Your task to perform on an android device: Go to internet settings Image 0: 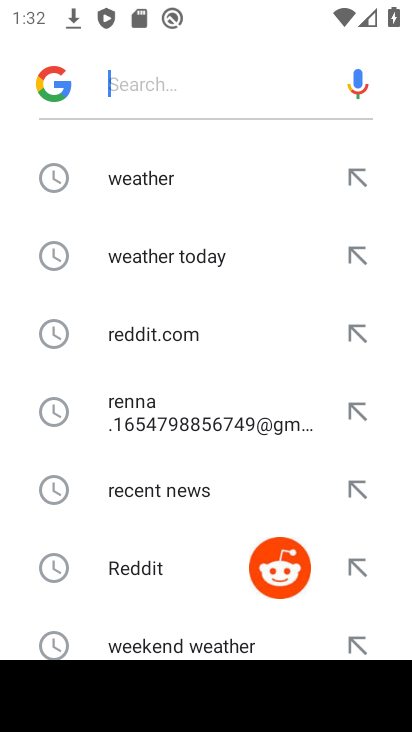
Step 0: press home button
Your task to perform on an android device: Go to internet settings Image 1: 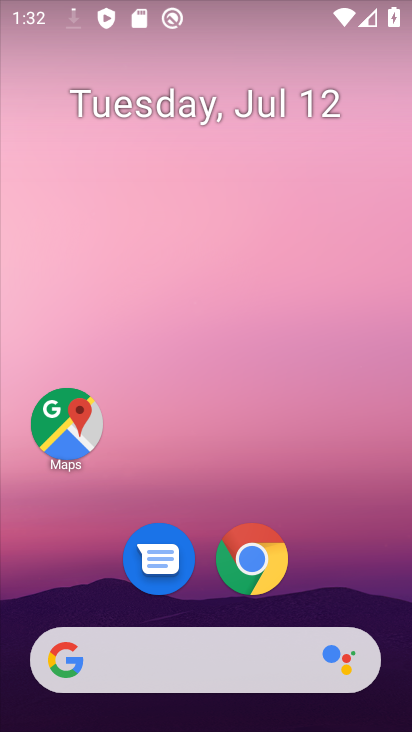
Step 1: drag from (358, 533) to (343, 123)
Your task to perform on an android device: Go to internet settings Image 2: 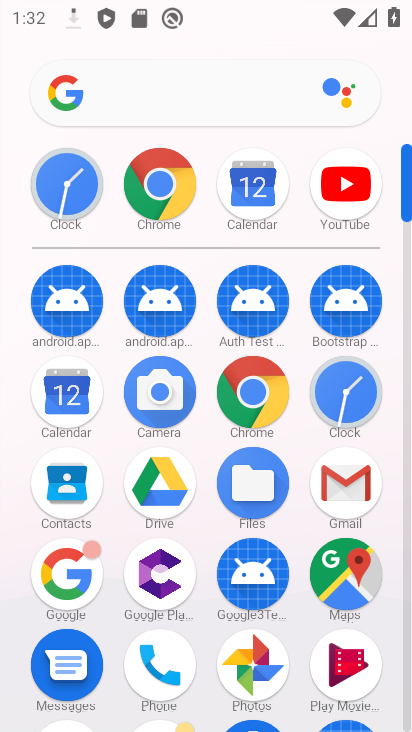
Step 2: drag from (195, 257) to (199, 92)
Your task to perform on an android device: Go to internet settings Image 3: 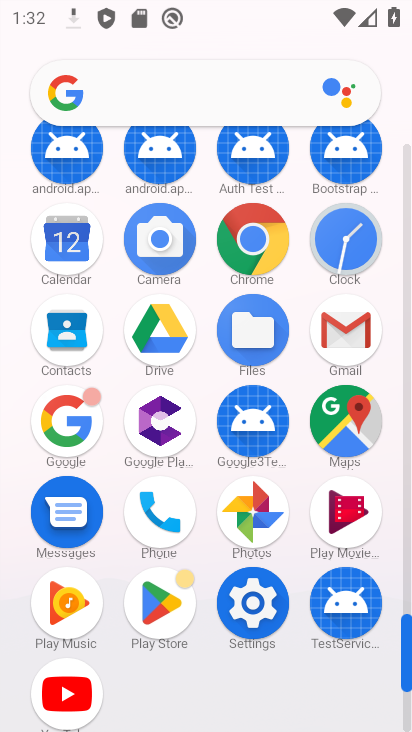
Step 3: click (238, 602)
Your task to perform on an android device: Go to internet settings Image 4: 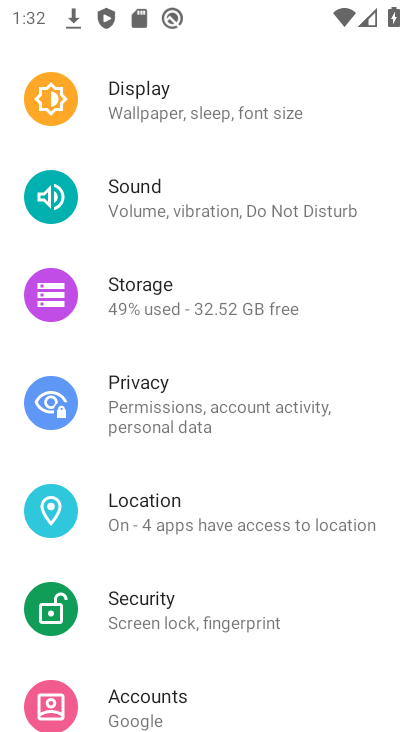
Step 4: drag from (348, 274) to (352, 412)
Your task to perform on an android device: Go to internet settings Image 5: 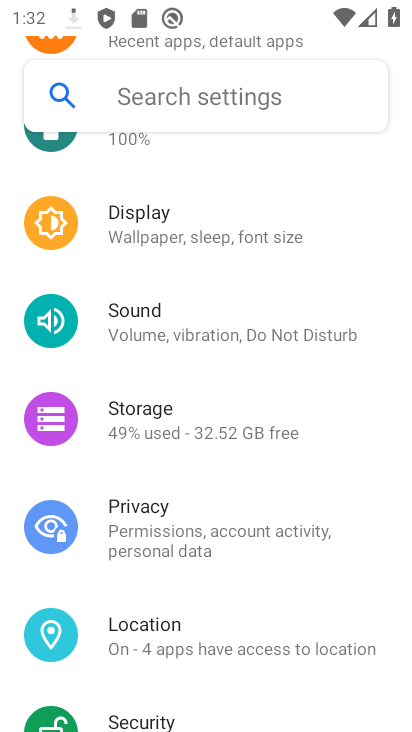
Step 5: drag from (368, 222) to (356, 355)
Your task to perform on an android device: Go to internet settings Image 6: 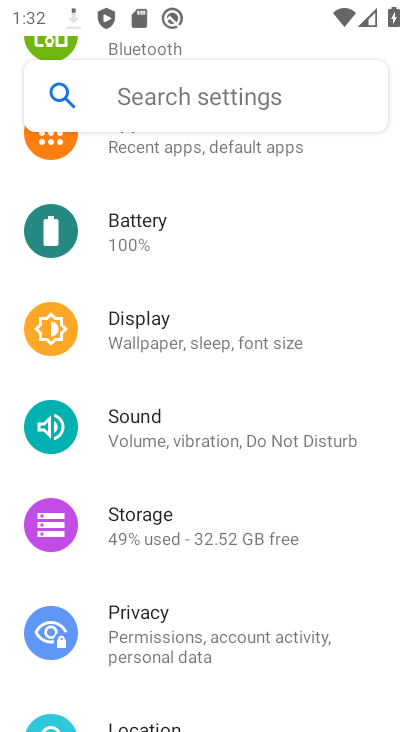
Step 6: drag from (353, 209) to (357, 343)
Your task to perform on an android device: Go to internet settings Image 7: 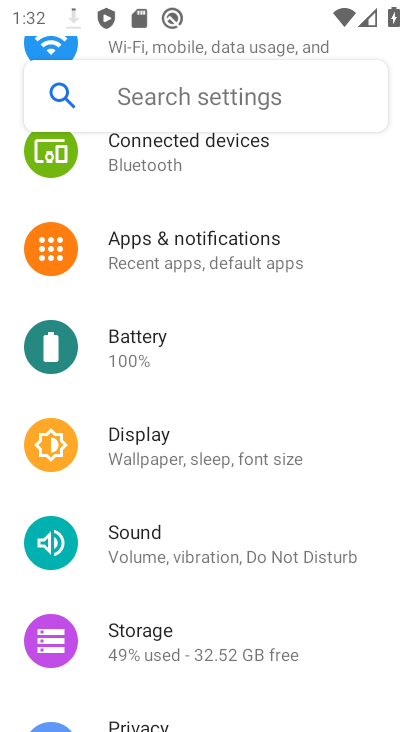
Step 7: drag from (361, 177) to (332, 384)
Your task to perform on an android device: Go to internet settings Image 8: 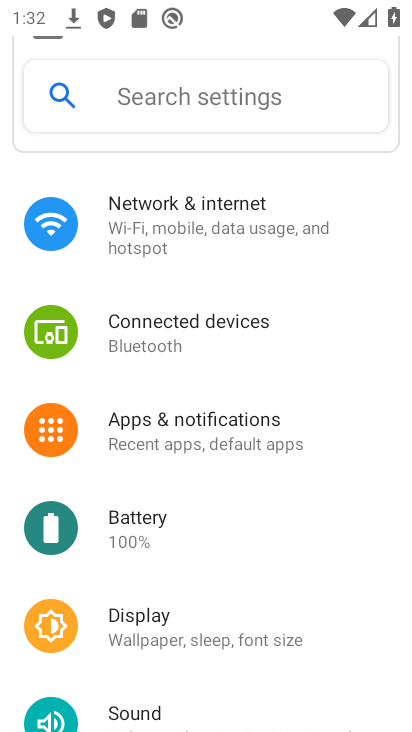
Step 8: click (273, 229)
Your task to perform on an android device: Go to internet settings Image 9: 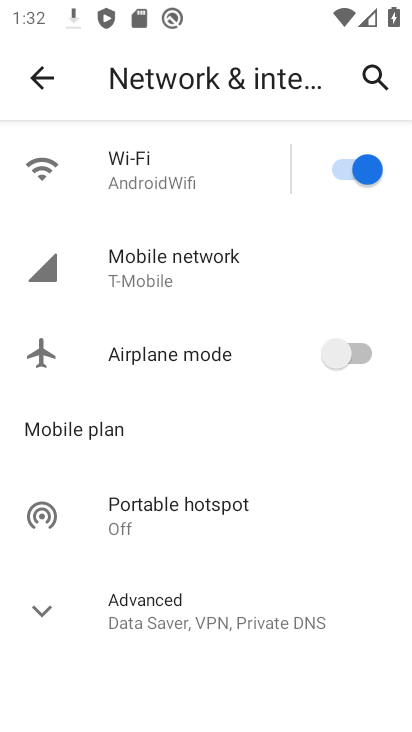
Step 9: task complete